Your task to perform on an android device: Open settings on Google Maps Image 0: 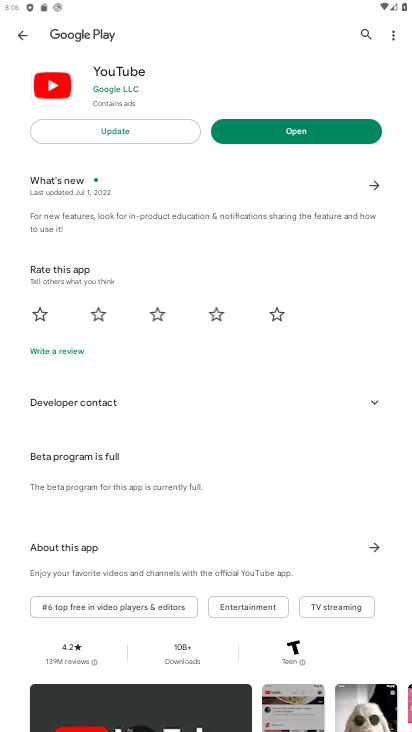
Step 0: press home button
Your task to perform on an android device: Open settings on Google Maps Image 1: 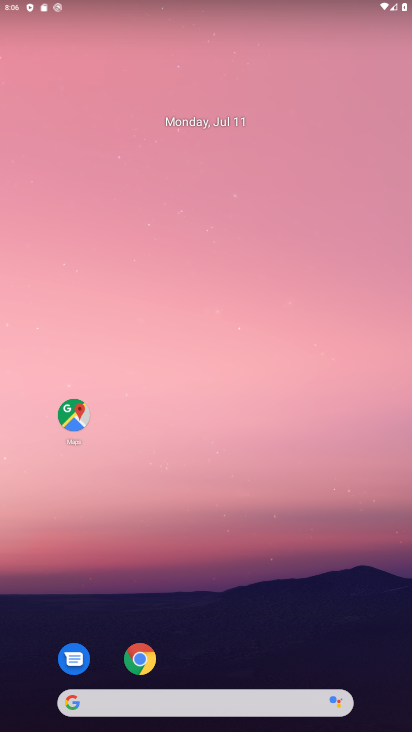
Step 1: click (85, 423)
Your task to perform on an android device: Open settings on Google Maps Image 2: 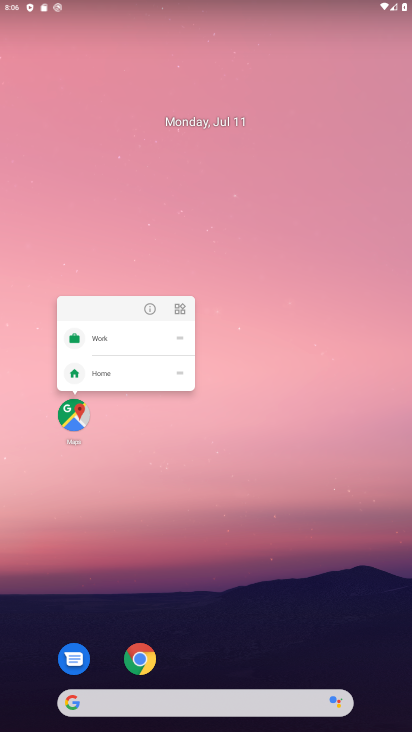
Step 2: click (46, 414)
Your task to perform on an android device: Open settings on Google Maps Image 3: 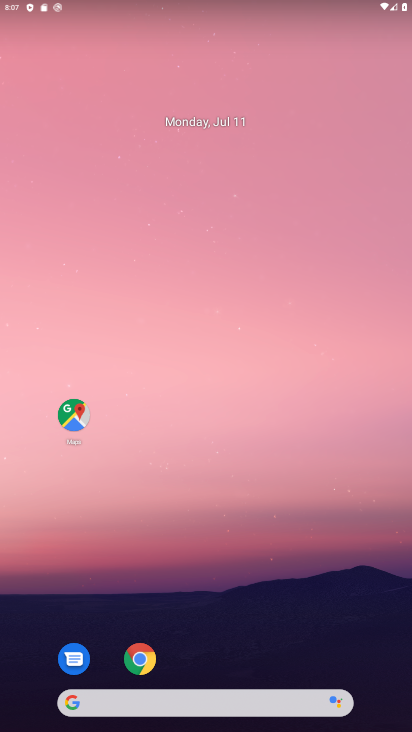
Step 3: click (70, 410)
Your task to perform on an android device: Open settings on Google Maps Image 4: 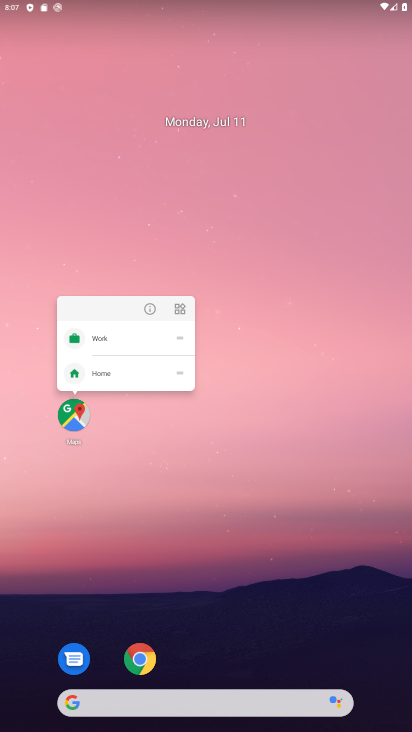
Step 4: click (71, 417)
Your task to perform on an android device: Open settings on Google Maps Image 5: 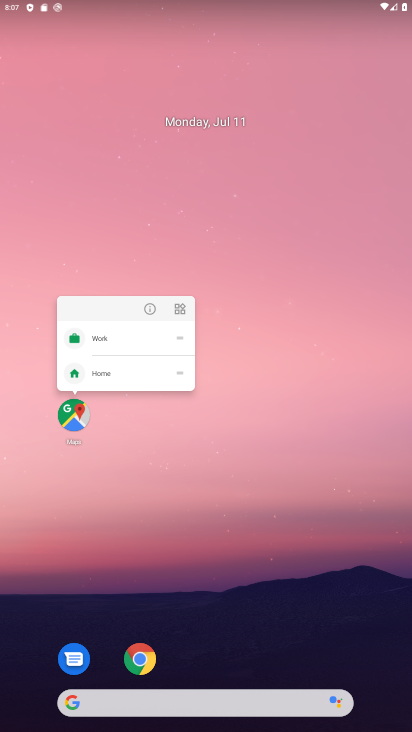
Step 5: click (78, 417)
Your task to perform on an android device: Open settings on Google Maps Image 6: 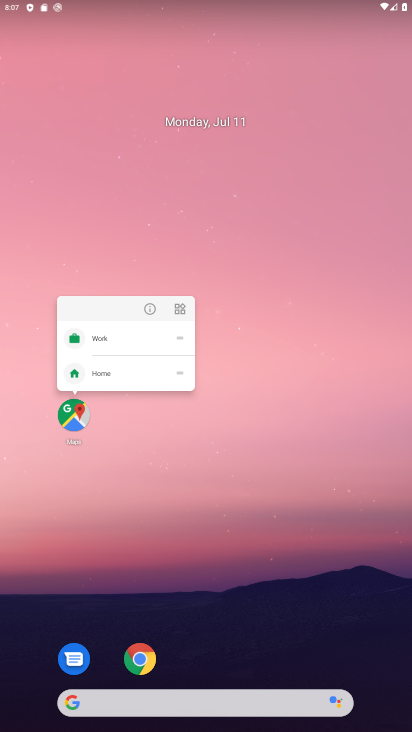
Step 6: task complete